Your task to perform on an android device: Open Yahoo.com Image 0: 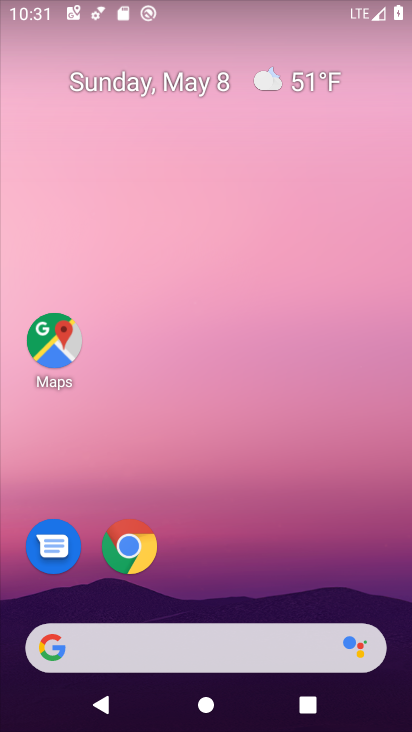
Step 0: click (129, 543)
Your task to perform on an android device: Open Yahoo.com Image 1: 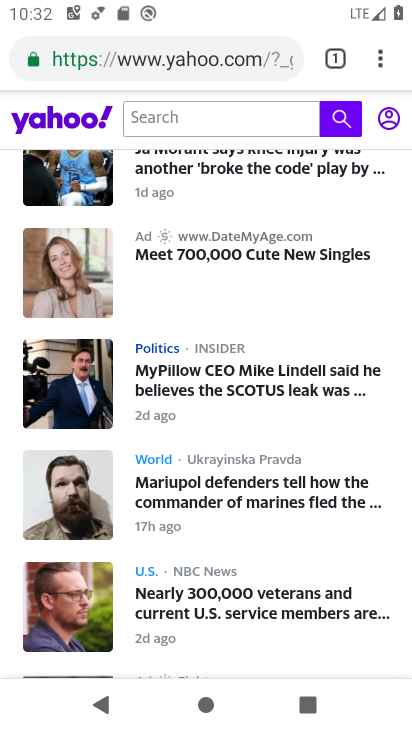
Step 1: task complete